Your task to perform on an android device: Open Google Chrome and click the shortcut for Amazon.com Image 0: 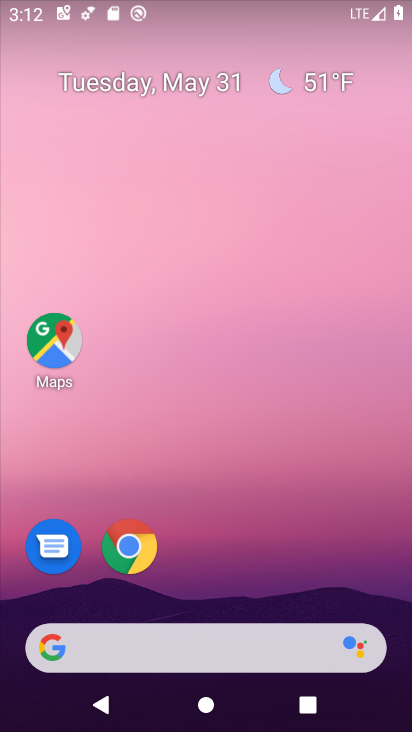
Step 0: click (149, 542)
Your task to perform on an android device: Open Google Chrome and click the shortcut for Amazon.com Image 1: 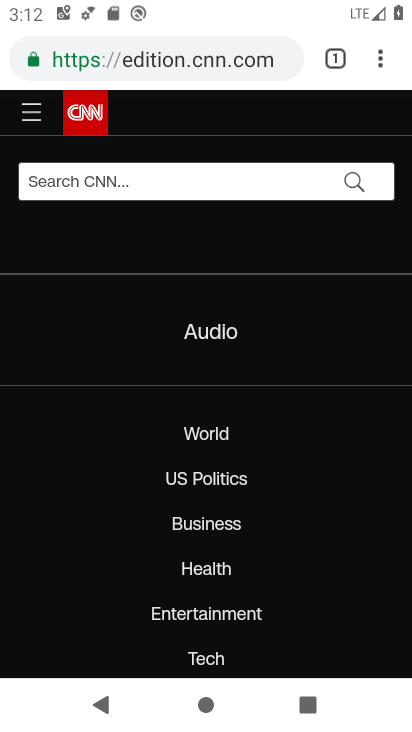
Step 1: click (340, 61)
Your task to perform on an android device: Open Google Chrome and click the shortcut for Amazon.com Image 2: 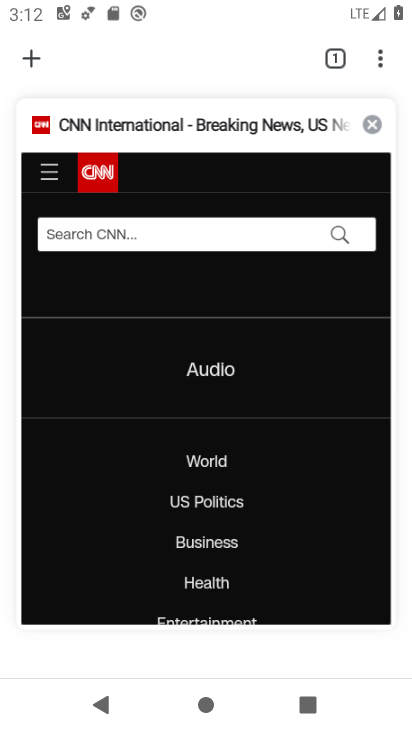
Step 2: click (23, 60)
Your task to perform on an android device: Open Google Chrome and click the shortcut for Amazon.com Image 3: 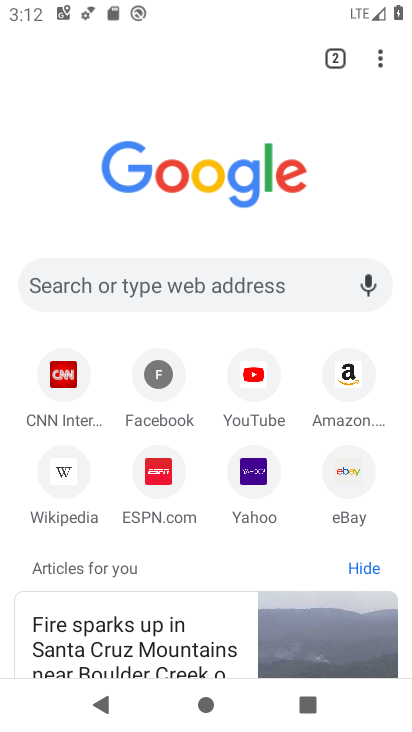
Step 3: click (339, 371)
Your task to perform on an android device: Open Google Chrome and click the shortcut for Amazon.com Image 4: 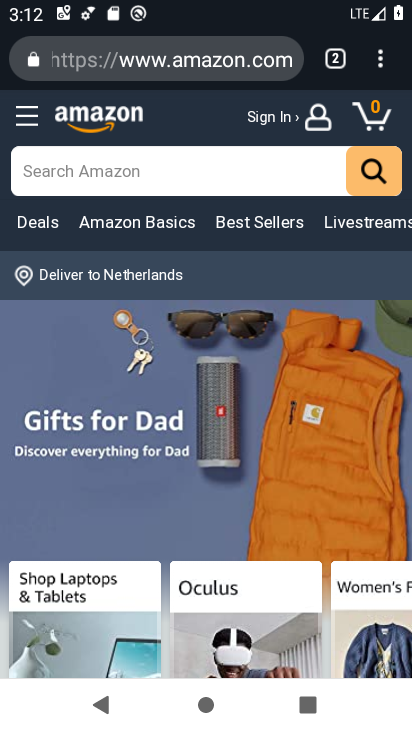
Step 4: task complete